Your task to perform on an android device: Show the shopping cart on walmart.com. Image 0: 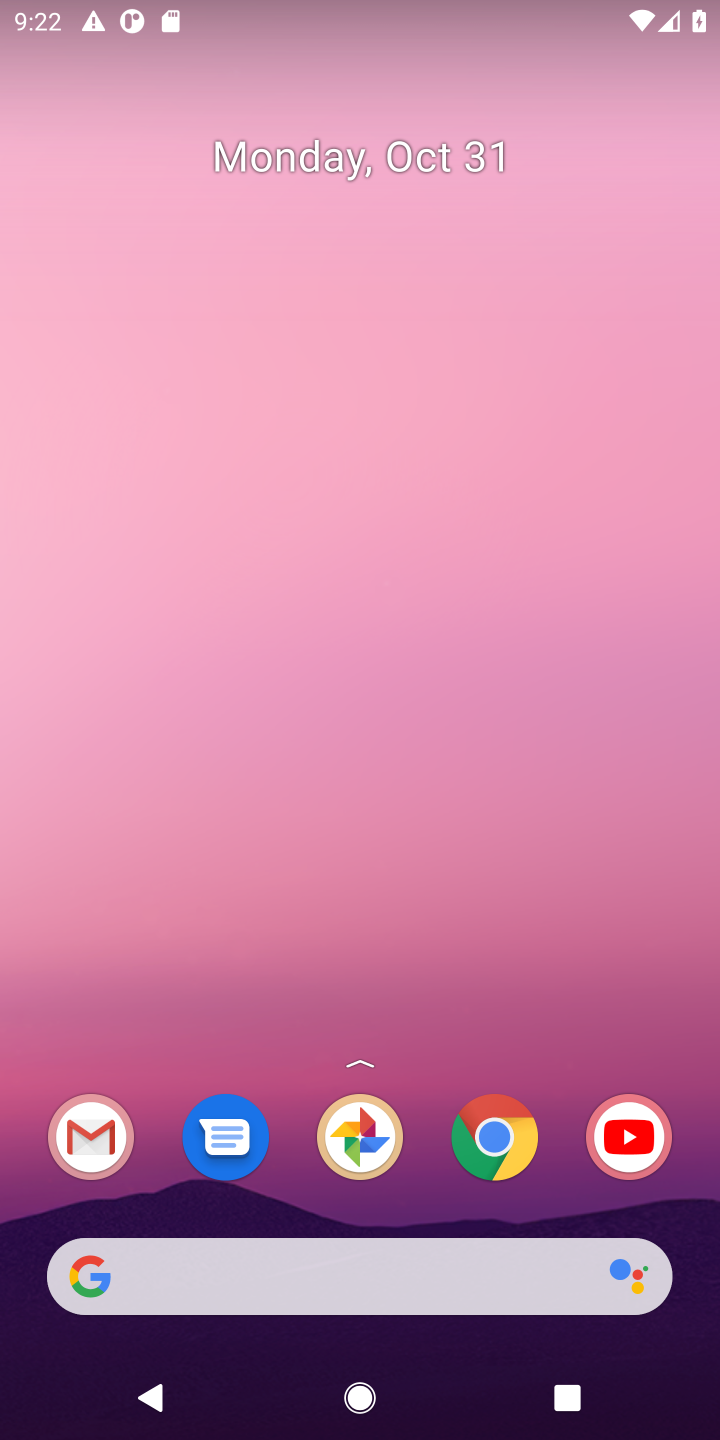
Step 0: click (487, 1141)
Your task to perform on an android device: Show the shopping cart on walmart.com. Image 1: 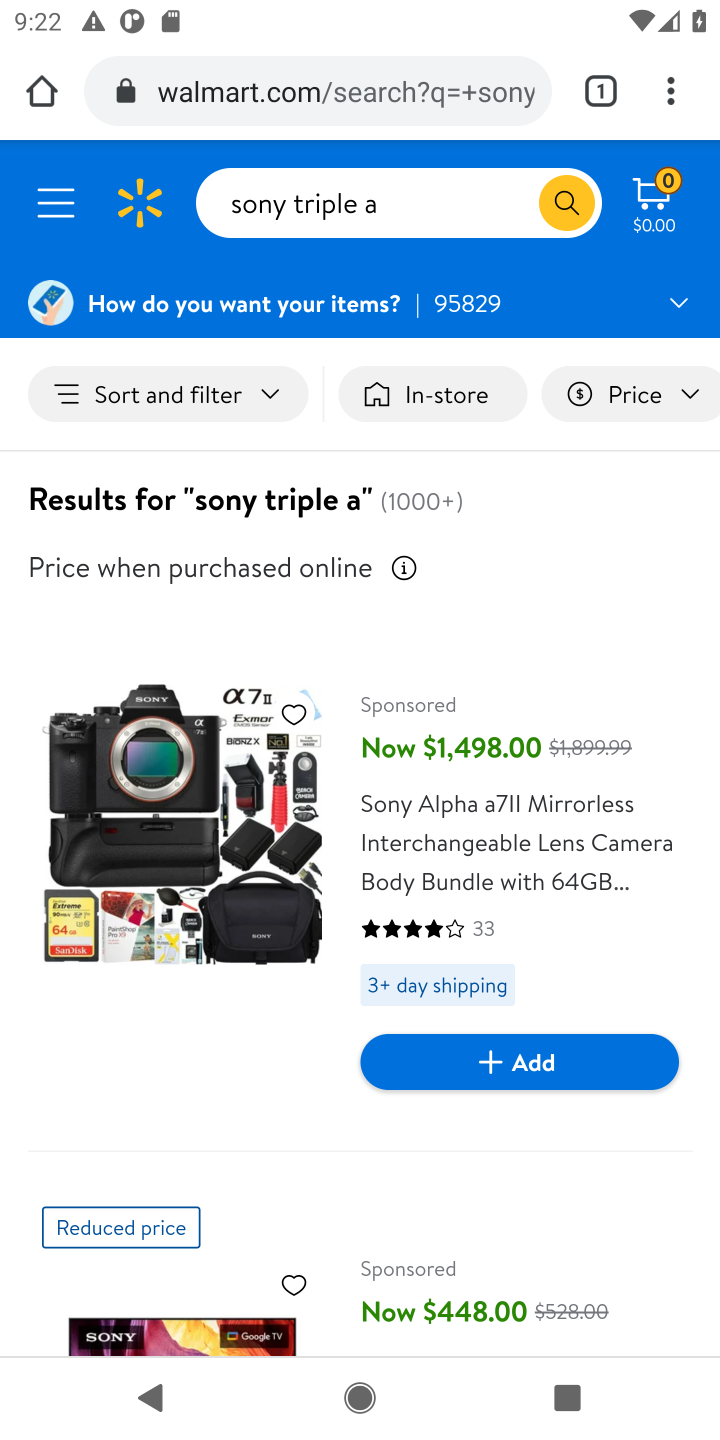
Step 1: click (658, 200)
Your task to perform on an android device: Show the shopping cart on walmart.com. Image 2: 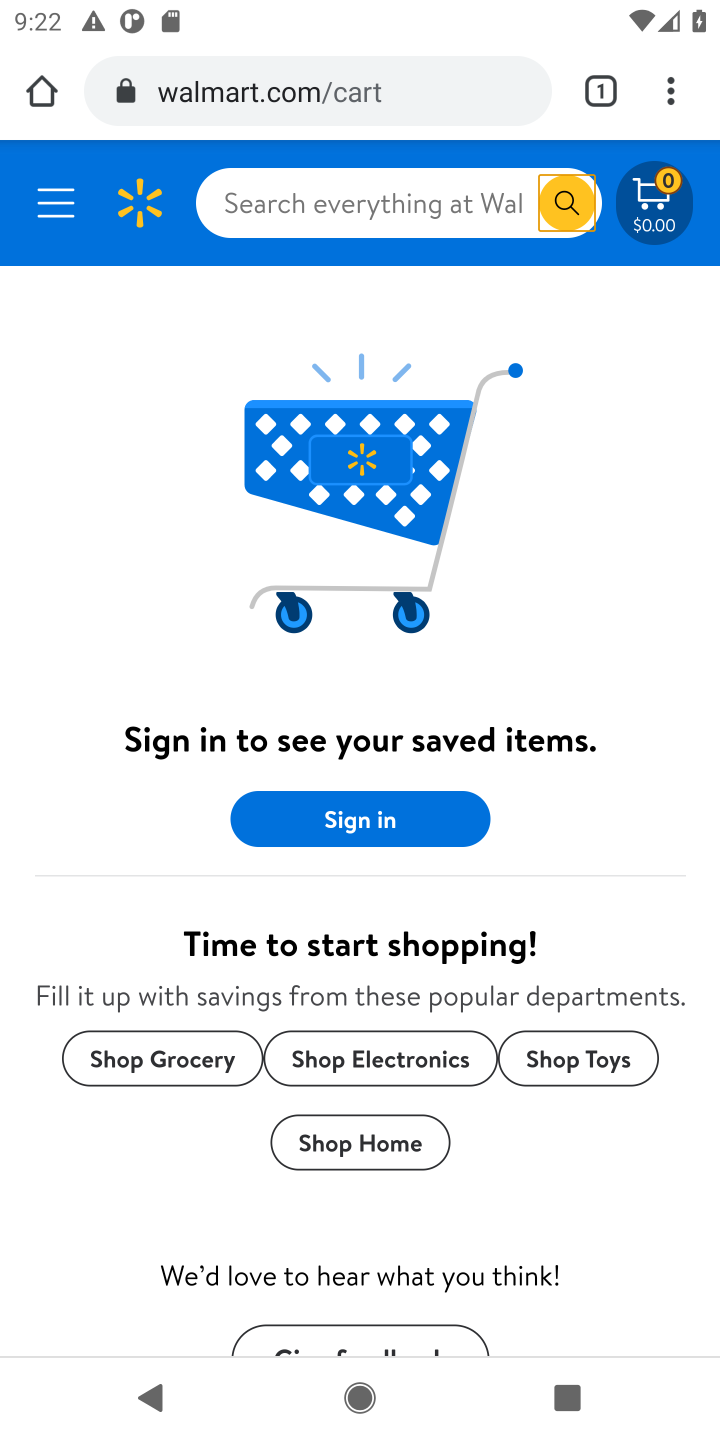
Step 2: task complete